Your task to perform on an android device: check google app version Image 0: 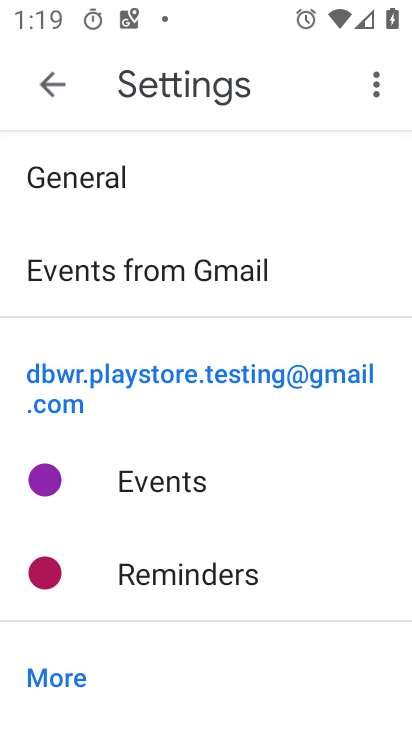
Step 0: press home button
Your task to perform on an android device: check google app version Image 1: 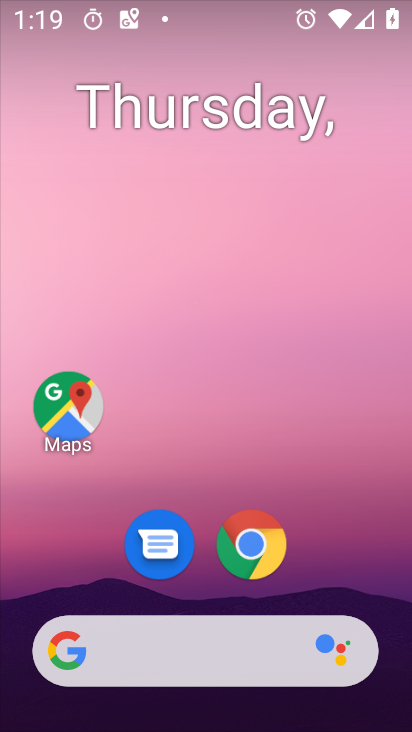
Step 1: drag from (21, 401) to (249, 151)
Your task to perform on an android device: check google app version Image 2: 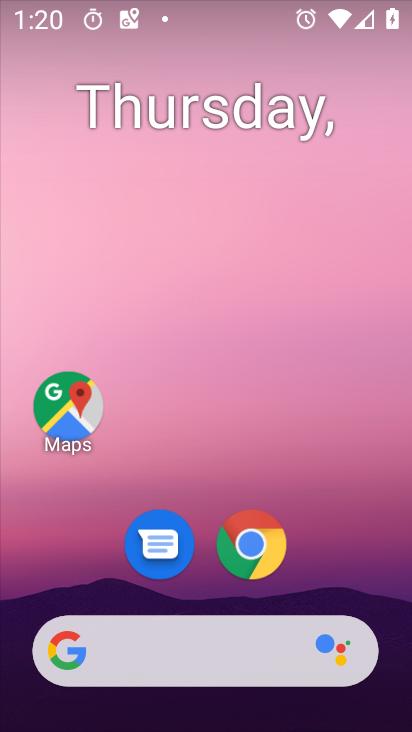
Step 2: drag from (71, 533) to (394, 62)
Your task to perform on an android device: check google app version Image 3: 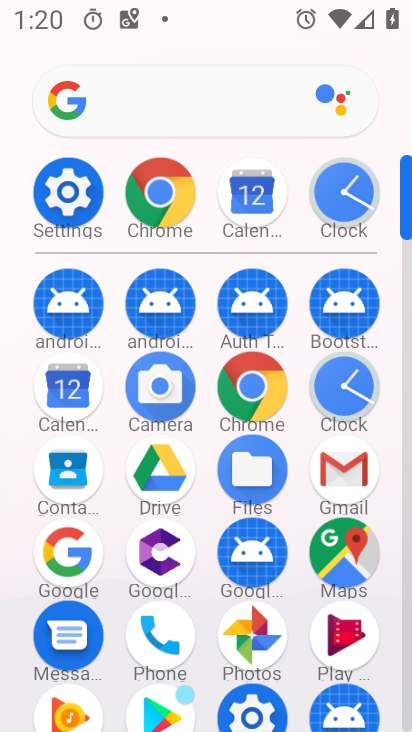
Step 3: click (245, 546)
Your task to perform on an android device: check google app version Image 4: 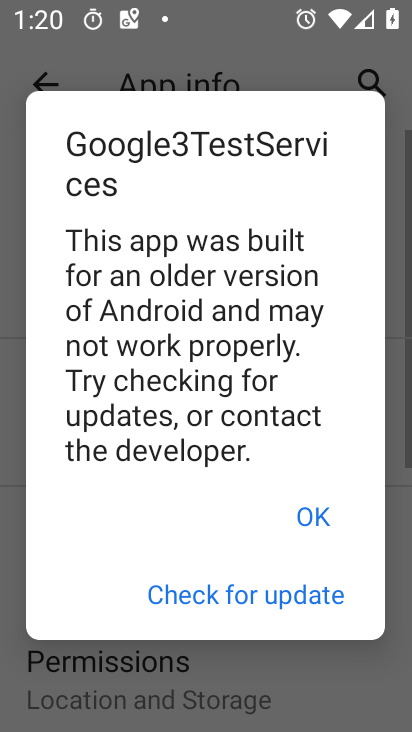
Step 4: click (305, 512)
Your task to perform on an android device: check google app version Image 5: 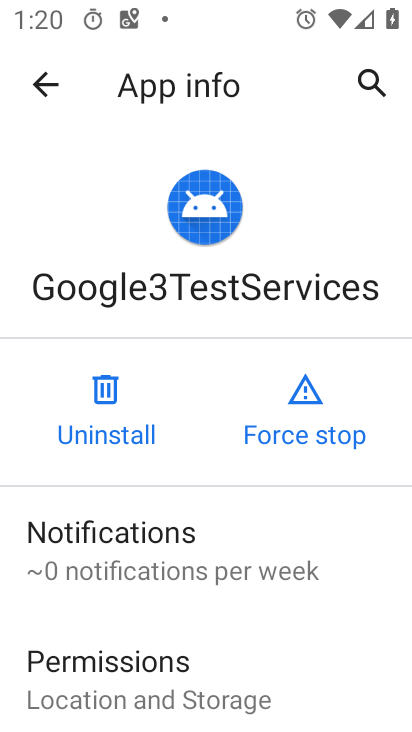
Step 5: drag from (48, 683) to (394, 3)
Your task to perform on an android device: check google app version Image 6: 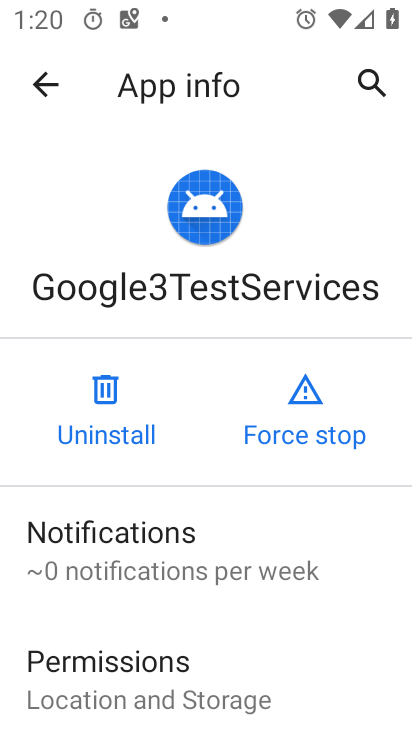
Step 6: drag from (7, 593) to (208, 124)
Your task to perform on an android device: check google app version Image 7: 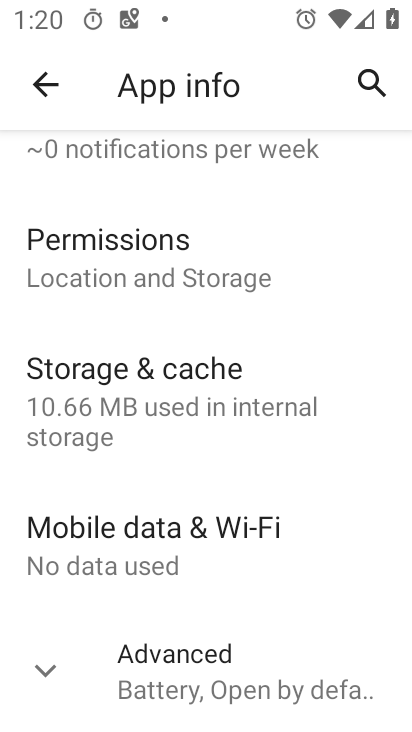
Step 7: click (83, 662)
Your task to perform on an android device: check google app version Image 8: 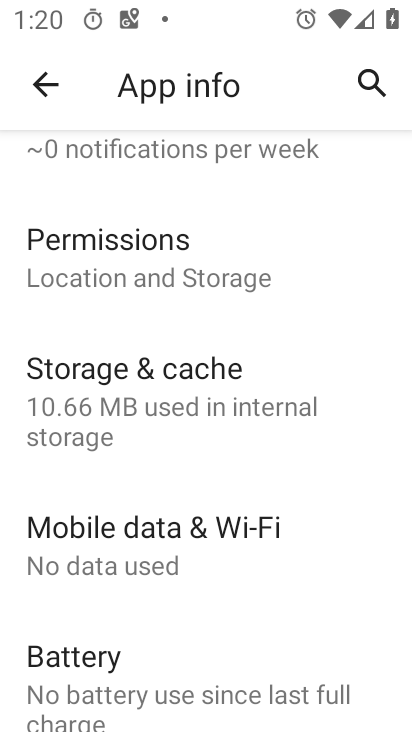
Step 8: drag from (94, 706) to (244, 121)
Your task to perform on an android device: check google app version Image 9: 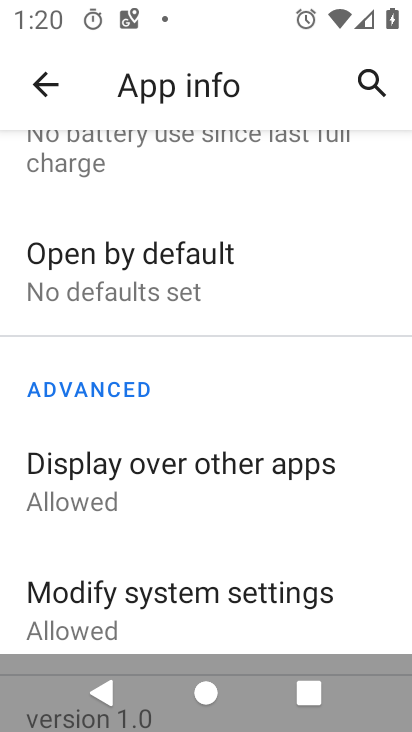
Step 9: drag from (16, 612) to (252, 110)
Your task to perform on an android device: check google app version Image 10: 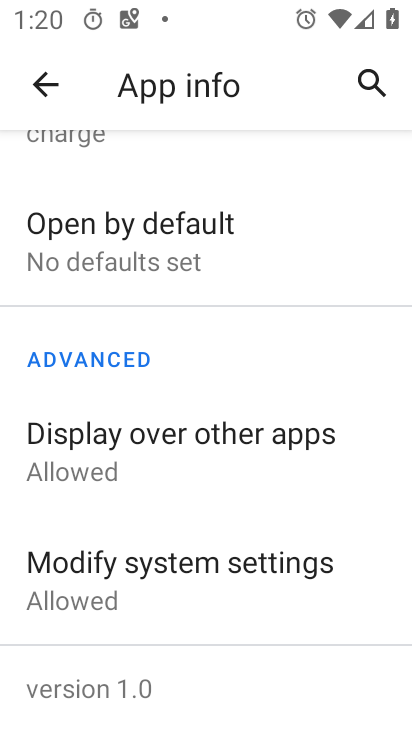
Step 10: click (45, 699)
Your task to perform on an android device: check google app version Image 11: 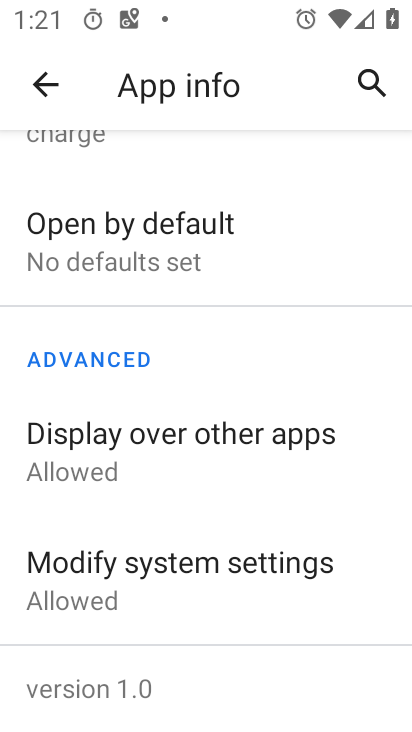
Step 11: task complete